Your task to perform on an android device: change notification settings in the gmail app Image 0: 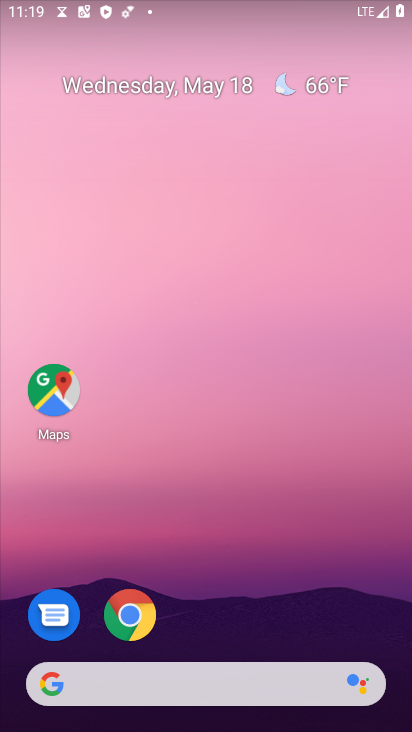
Step 0: drag from (262, 563) to (180, 50)
Your task to perform on an android device: change notification settings in the gmail app Image 1: 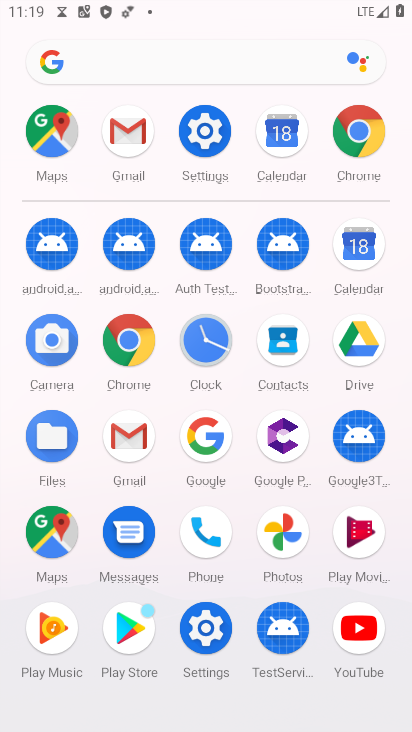
Step 1: drag from (6, 523) to (1, 279)
Your task to perform on an android device: change notification settings in the gmail app Image 2: 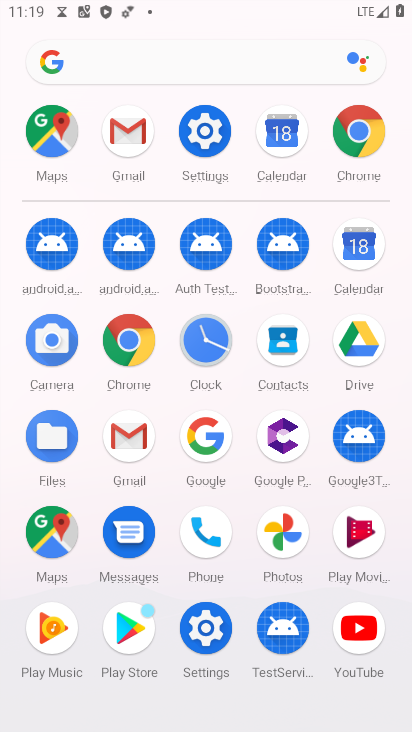
Step 2: click (126, 432)
Your task to perform on an android device: change notification settings in the gmail app Image 3: 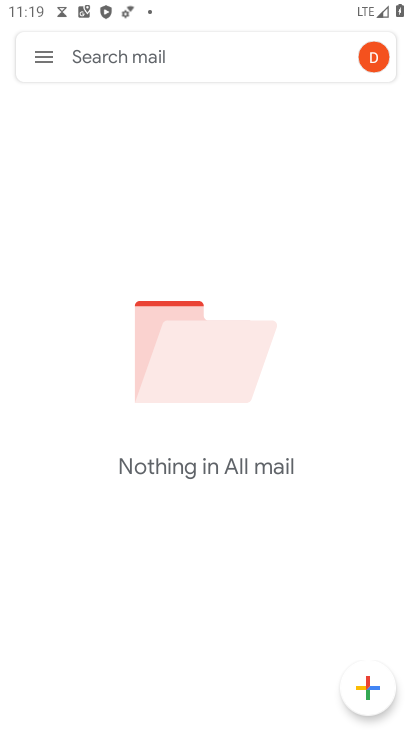
Step 3: click (38, 47)
Your task to perform on an android device: change notification settings in the gmail app Image 4: 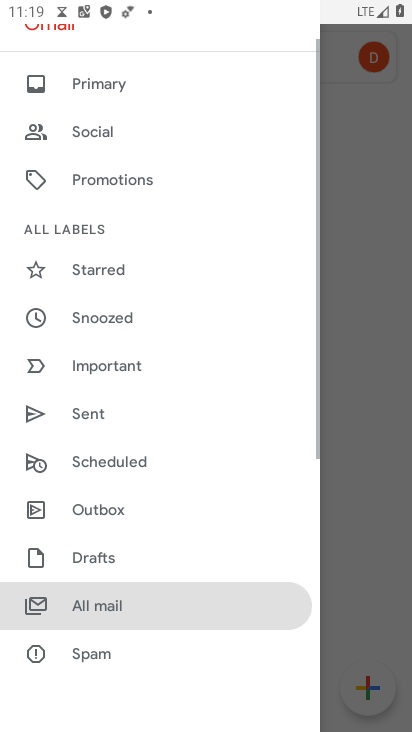
Step 4: drag from (257, 640) to (251, 134)
Your task to perform on an android device: change notification settings in the gmail app Image 5: 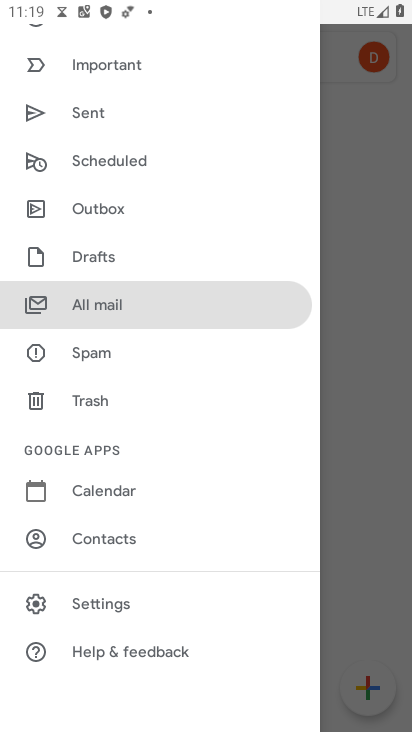
Step 5: click (110, 601)
Your task to perform on an android device: change notification settings in the gmail app Image 6: 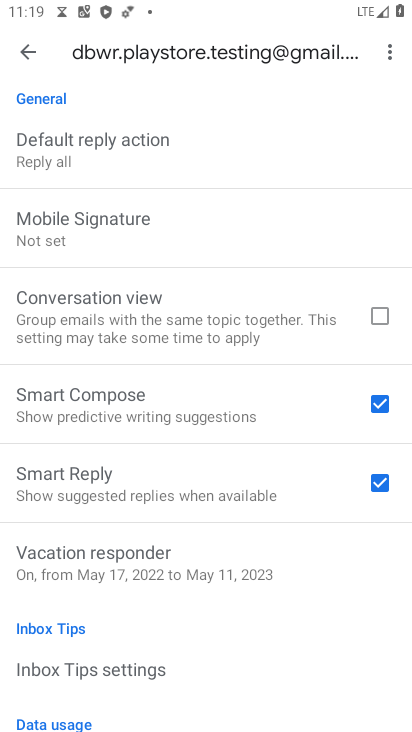
Step 6: drag from (183, 529) to (208, 159)
Your task to perform on an android device: change notification settings in the gmail app Image 7: 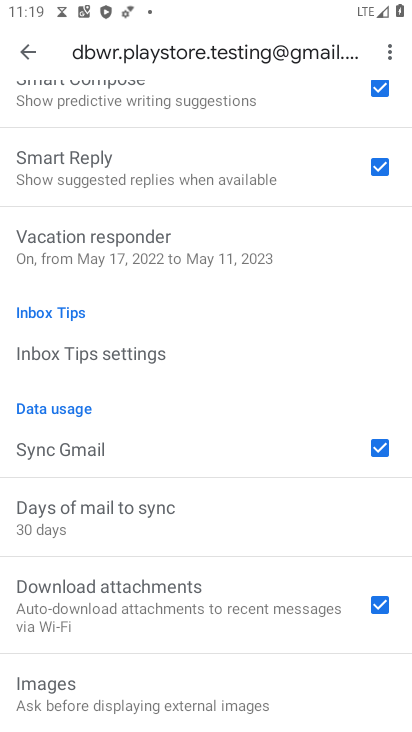
Step 7: drag from (232, 560) to (217, 119)
Your task to perform on an android device: change notification settings in the gmail app Image 8: 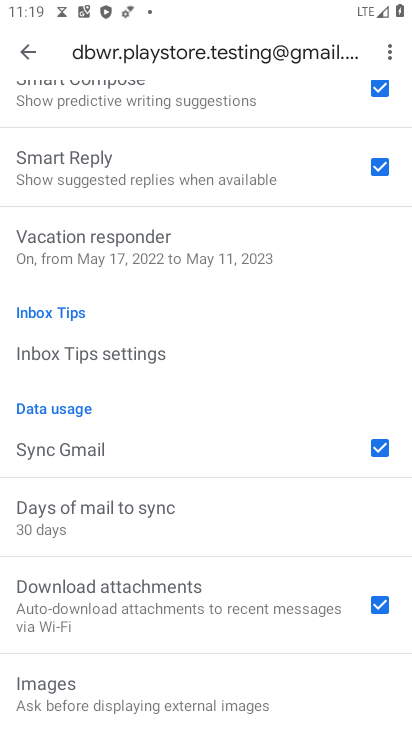
Step 8: drag from (217, 170) to (215, 647)
Your task to perform on an android device: change notification settings in the gmail app Image 9: 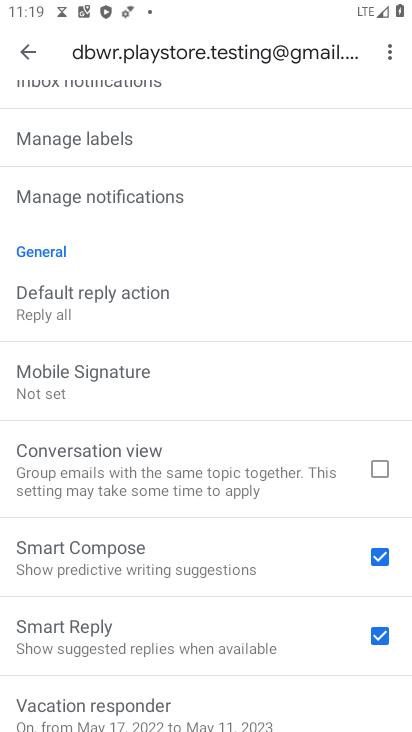
Step 9: click (152, 187)
Your task to perform on an android device: change notification settings in the gmail app Image 10: 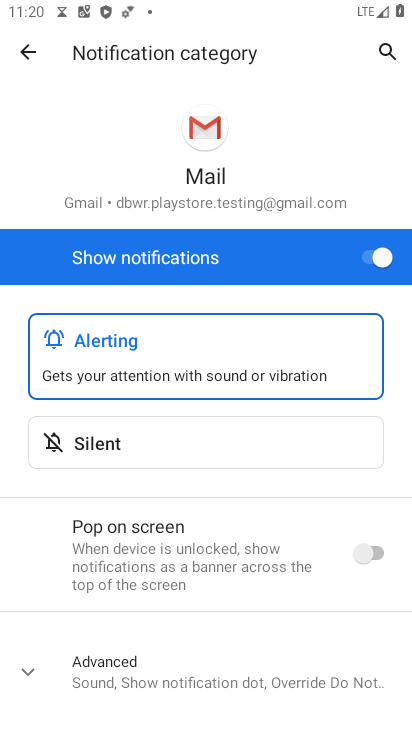
Step 10: click (390, 251)
Your task to perform on an android device: change notification settings in the gmail app Image 11: 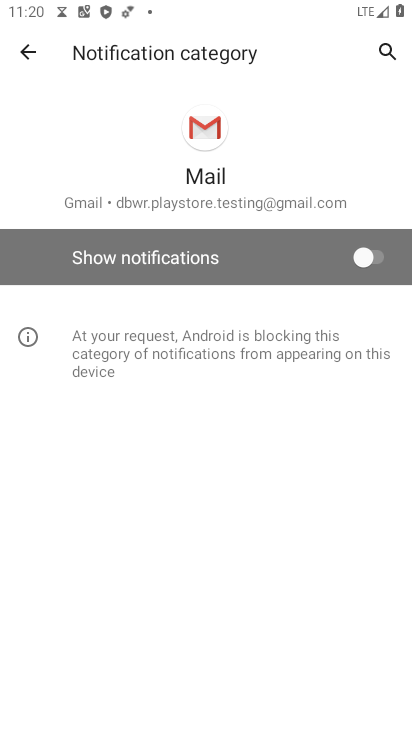
Step 11: task complete